Your task to perform on an android device: change the clock display to analog Image 0: 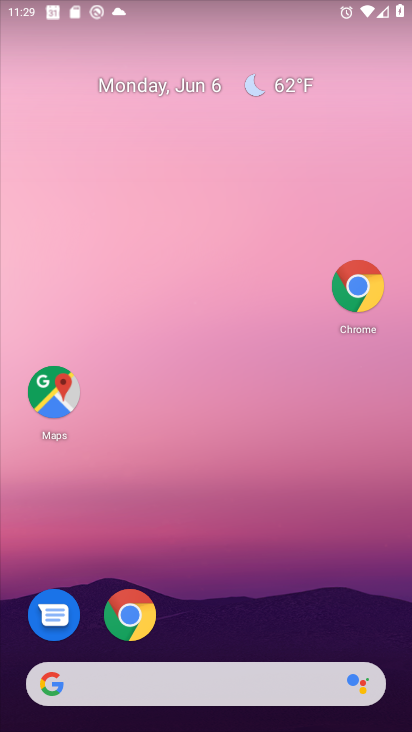
Step 0: drag from (286, 709) to (168, 135)
Your task to perform on an android device: change the clock display to analog Image 1: 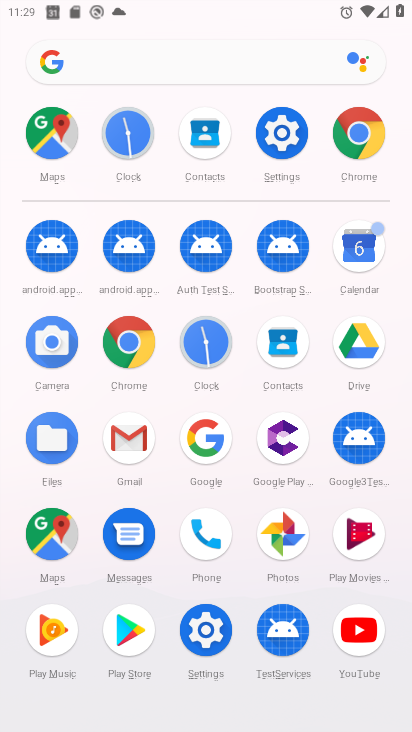
Step 1: click (117, 129)
Your task to perform on an android device: change the clock display to analog Image 2: 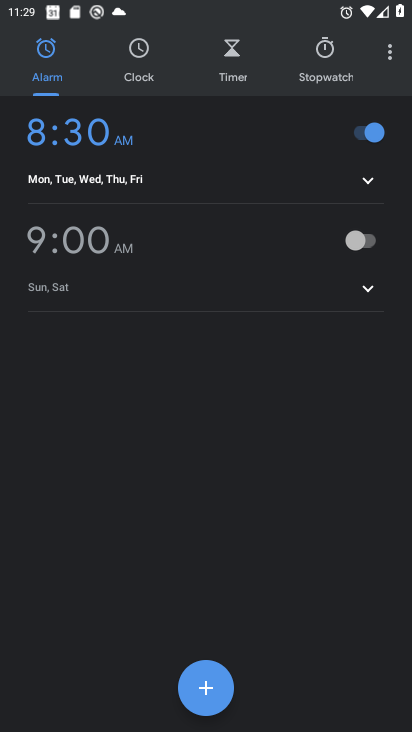
Step 2: click (380, 60)
Your task to perform on an android device: change the clock display to analog Image 3: 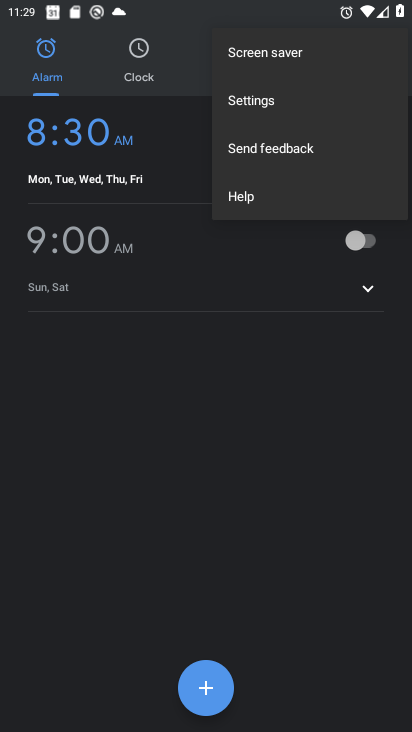
Step 3: click (279, 98)
Your task to perform on an android device: change the clock display to analog Image 4: 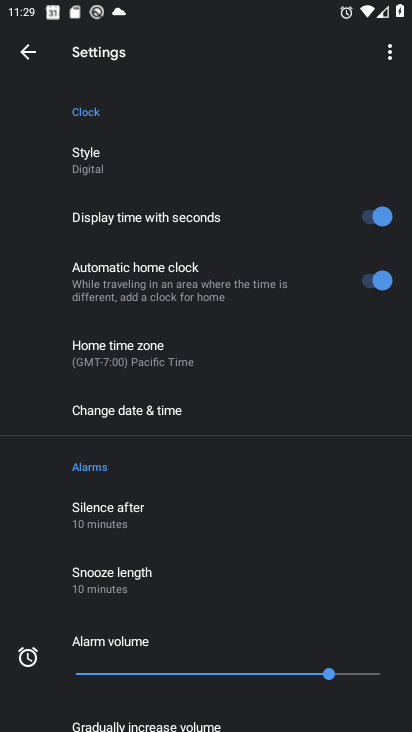
Step 4: click (142, 153)
Your task to perform on an android device: change the clock display to analog Image 5: 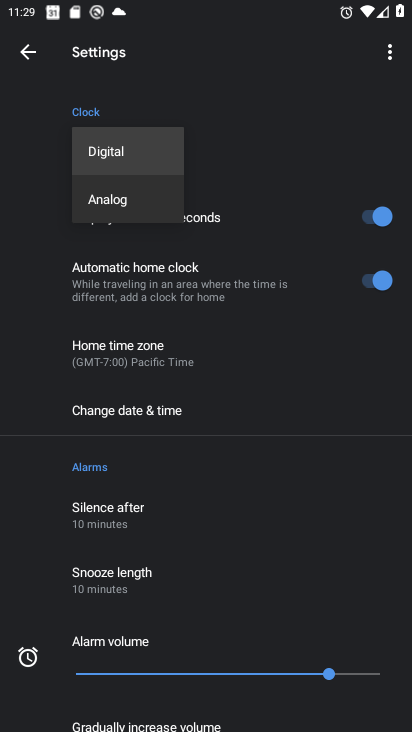
Step 5: click (126, 200)
Your task to perform on an android device: change the clock display to analog Image 6: 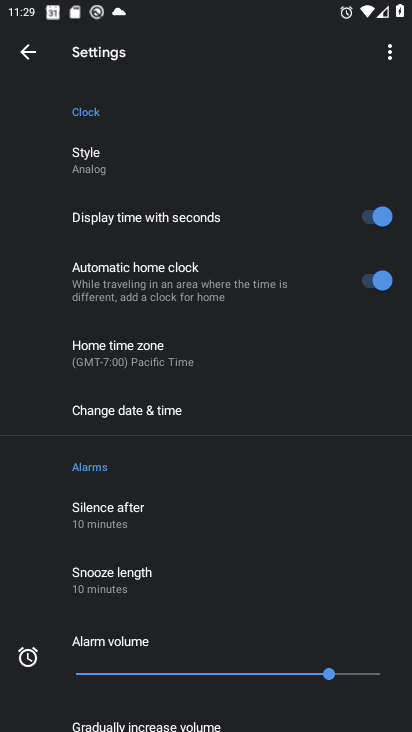
Step 6: task complete